Your task to perform on an android device: search for starred emails in the gmail app Image 0: 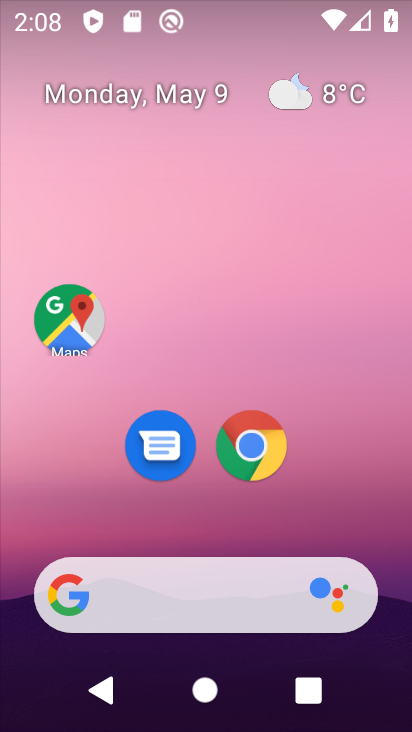
Step 0: drag from (348, 437) to (381, 18)
Your task to perform on an android device: search for starred emails in the gmail app Image 1: 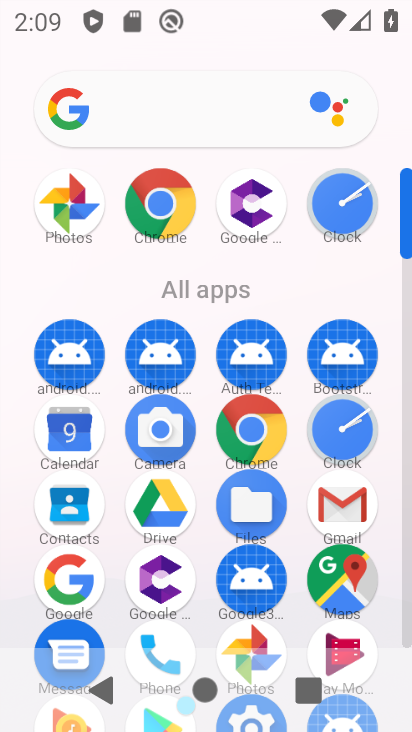
Step 1: click (323, 519)
Your task to perform on an android device: search for starred emails in the gmail app Image 2: 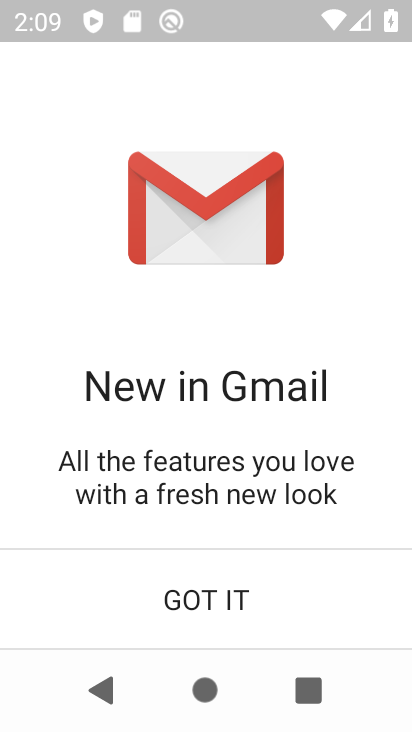
Step 2: click (168, 612)
Your task to perform on an android device: search for starred emails in the gmail app Image 3: 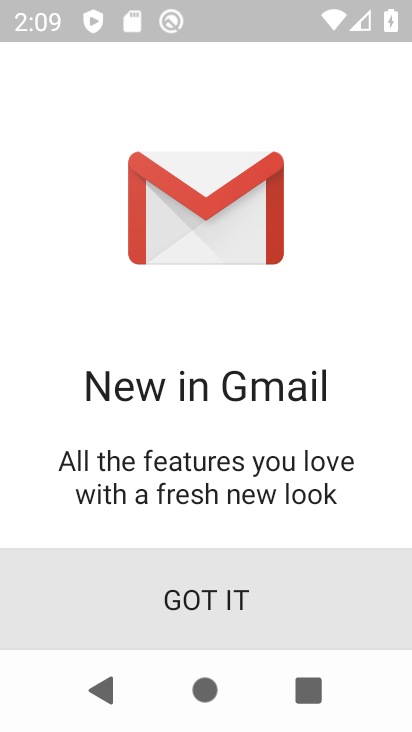
Step 3: click (170, 607)
Your task to perform on an android device: search for starred emails in the gmail app Image 4: 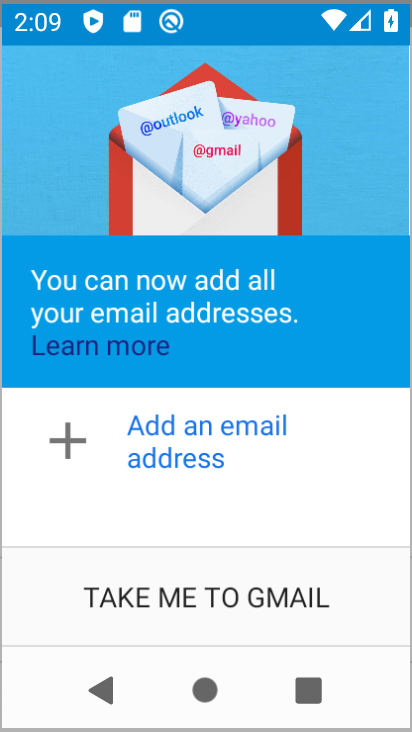
Step 4: click (170, 607)
Your task to perform on an android device: search for starred emails in the gmail app Image 5: 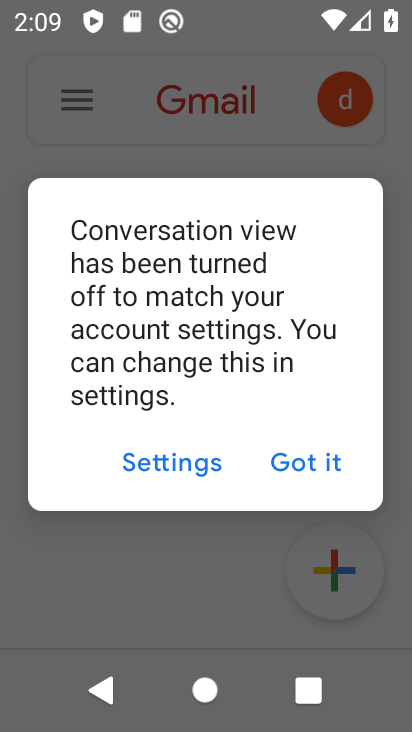
Step 5: click (297, 469)
Your task to perform on an android device: search for starred emails in the gmail app Image 6: 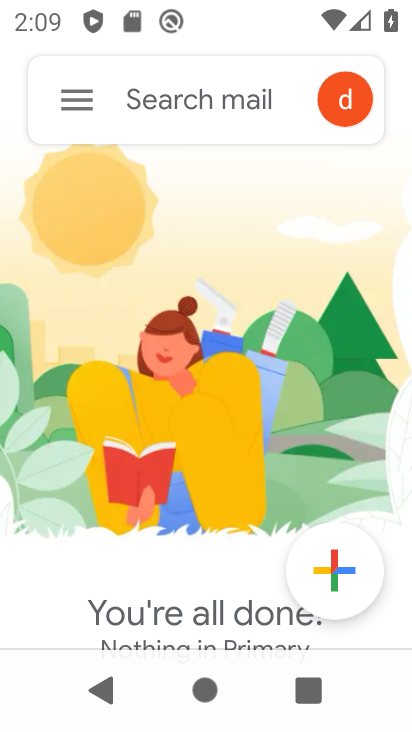
Step 6: click (64, 110)
Your task to perform on an android device: search for starred emails in the gmail app Image 7: 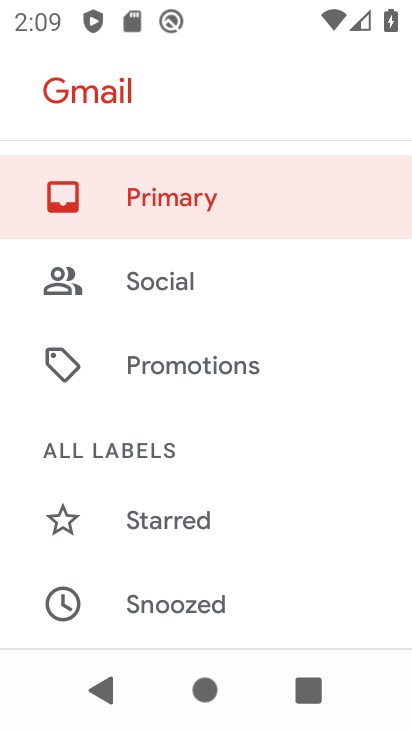
Step 7: drag from (238, 558) to (238, 499)
Your task to perform on an android device: search for starred emails in the gmail app Image 8: 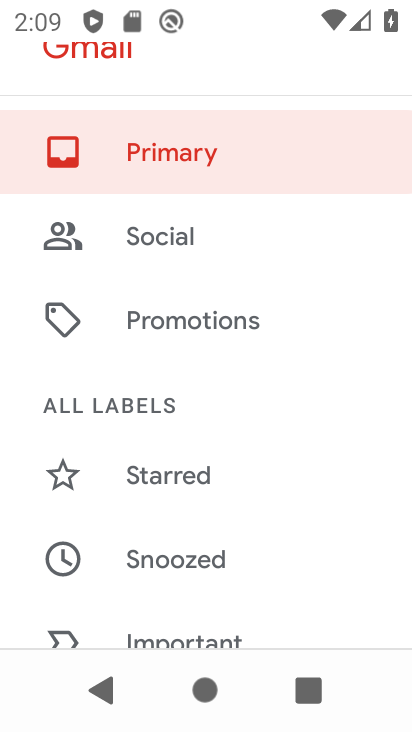
Step 8: click (205, 460)
Your task to perform on an android device: search for starred emails in the gmail app Image 9: 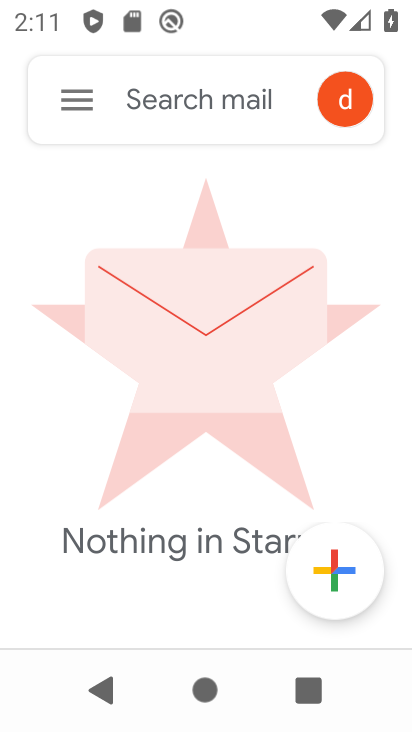
Step 9: task complete